Your task to perform on an android device: open app "Google Duo" (install if not already installed) Image 0: 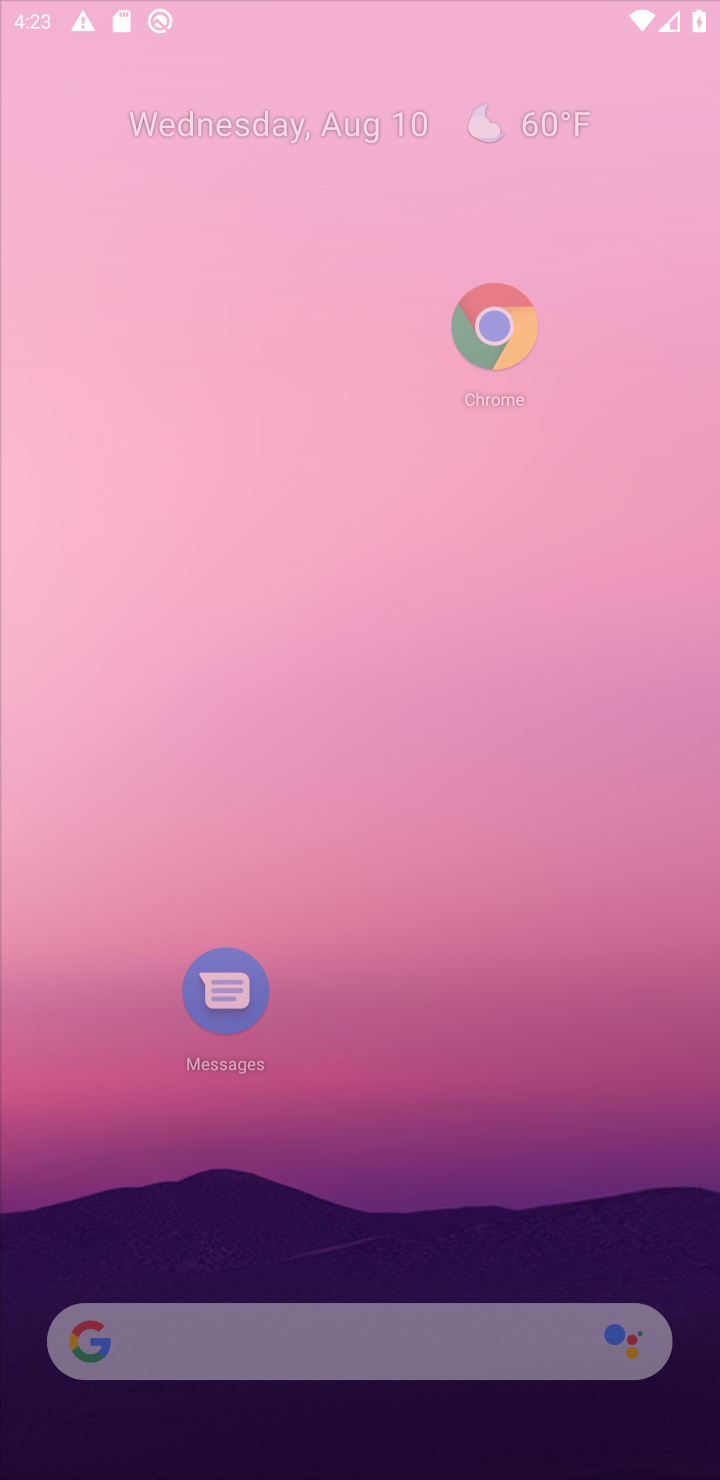
Step 0: click (576, 85)
Your task to perform on an android device: open app "Google Duo" (install if not already installed) Image 1: 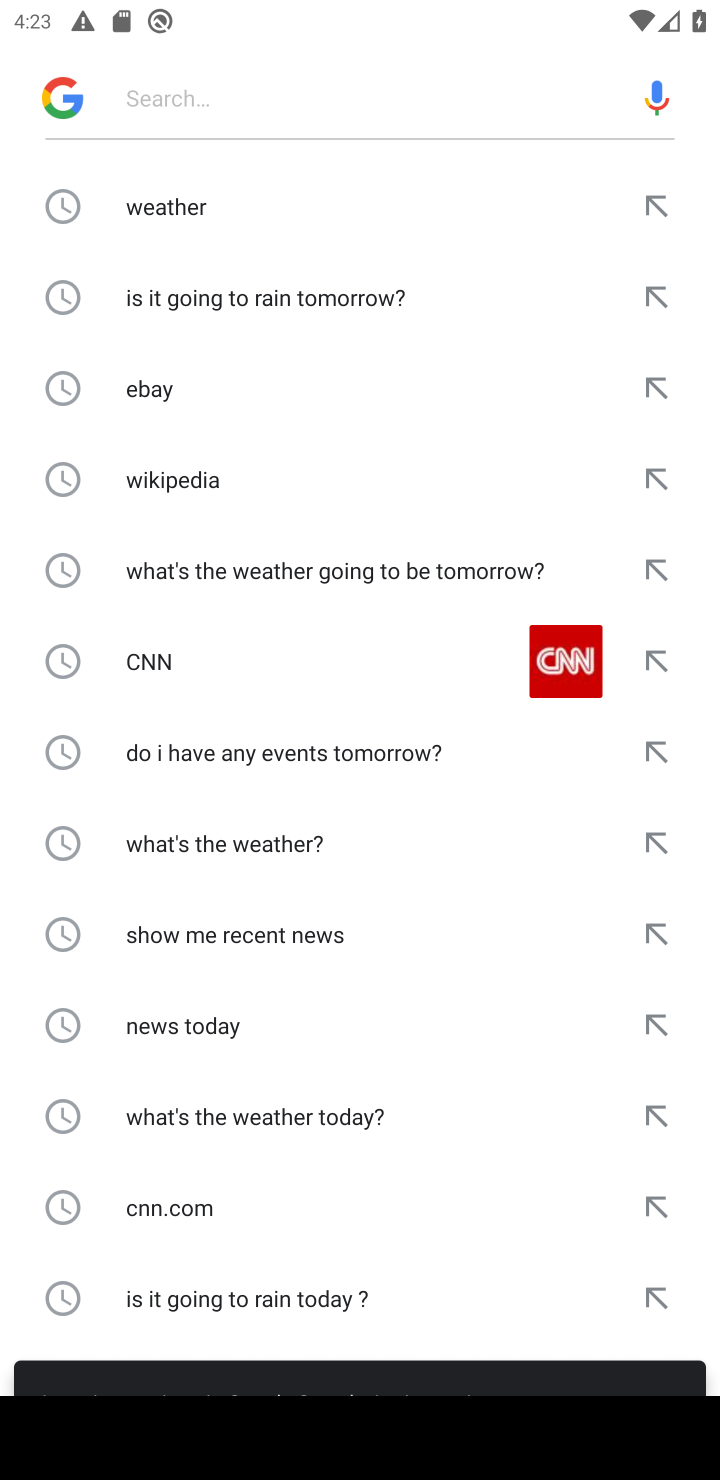
Step 1: press home button
Your task to perform on an android device: open app "Google Duo" (install if not already installed) Image 2: 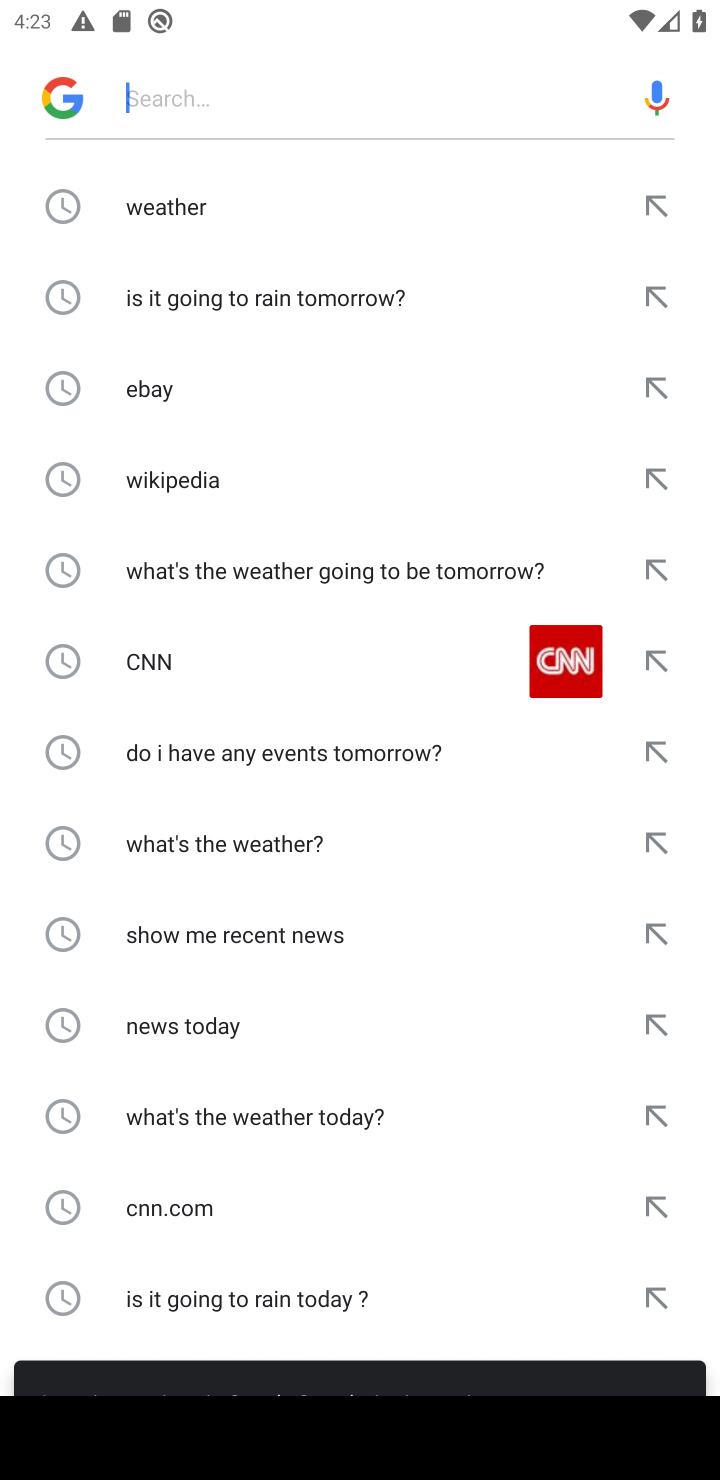
Step 2: press home button
Your task to perform on an android device: open app "Google Duo" (install if not already installed) Image 3: 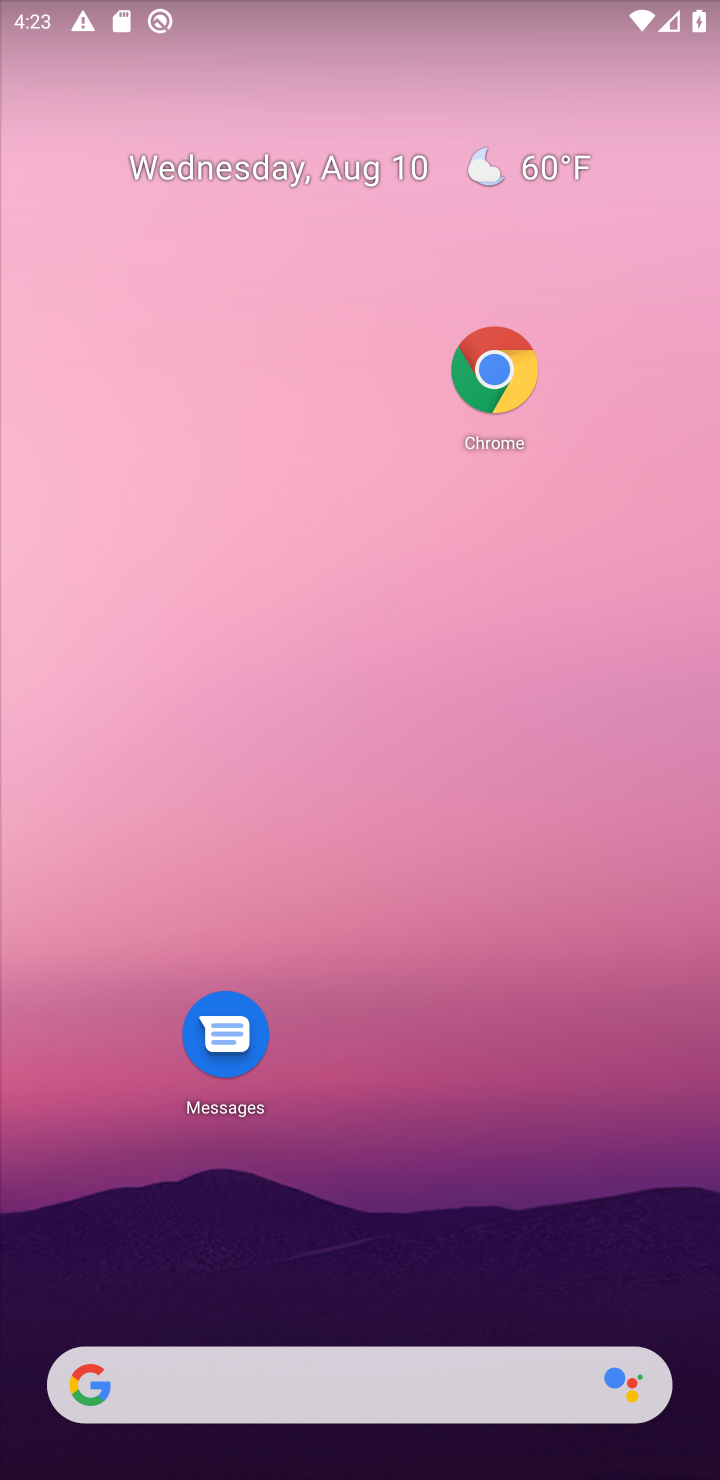
Step 3: drag from (324, 1014) to (292, 500)
Your task to perform on an android device: open app "Google Duo" (install if not already installed) Image 4: 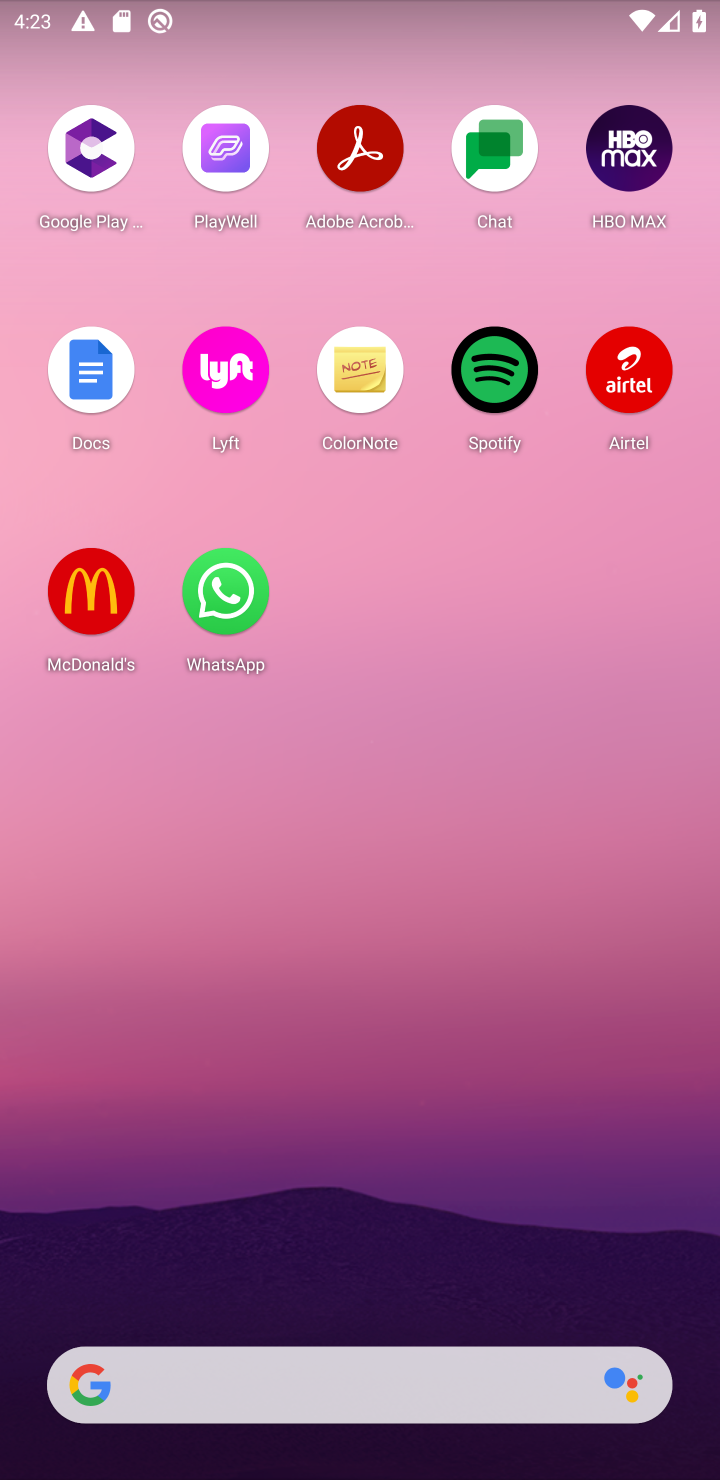
Step 4: drag from (235, 1376) to (345, 498)
Your task to perform on an android device: open app "Google Duo" (install if not already installed) Image 5: 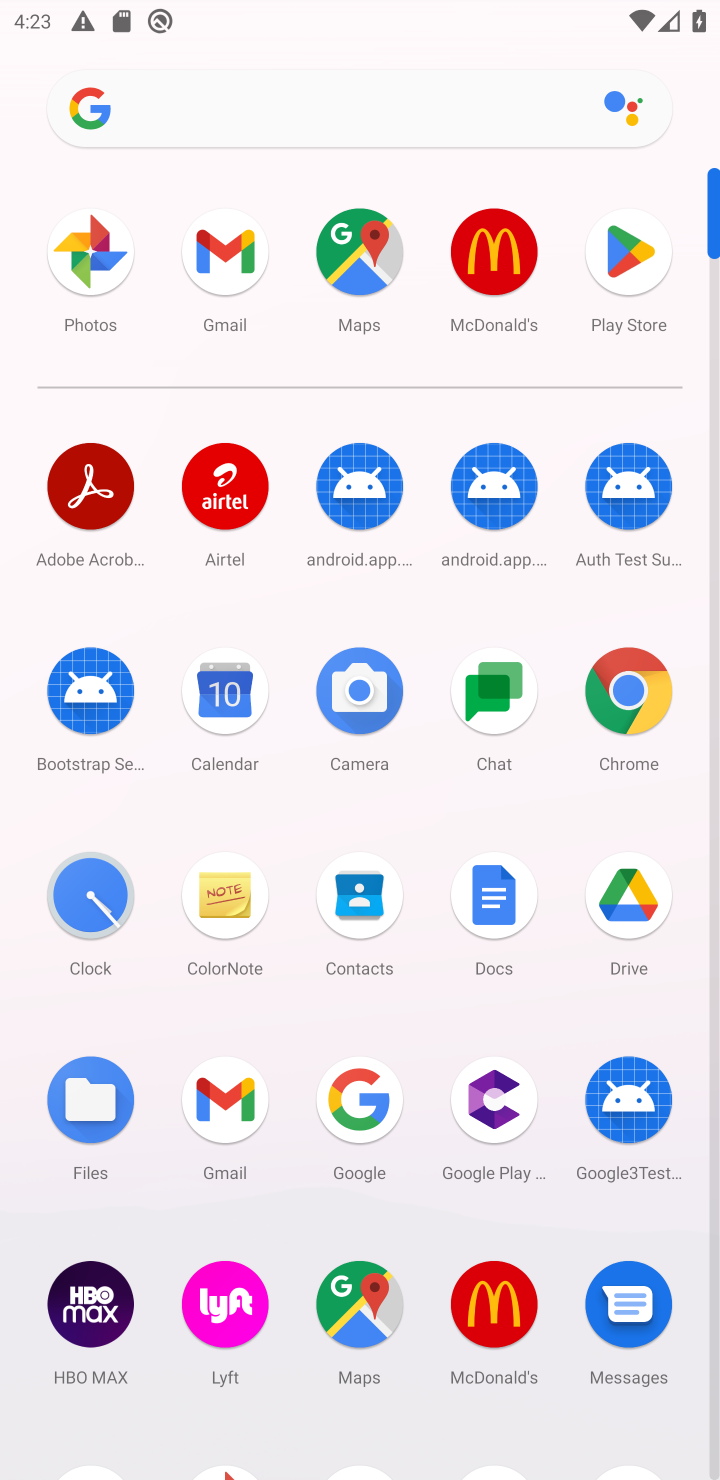
Step 5: click (601, 253)
Your task to perform on an android device: open app "Google Duo" (install if not already installed) Image 6: 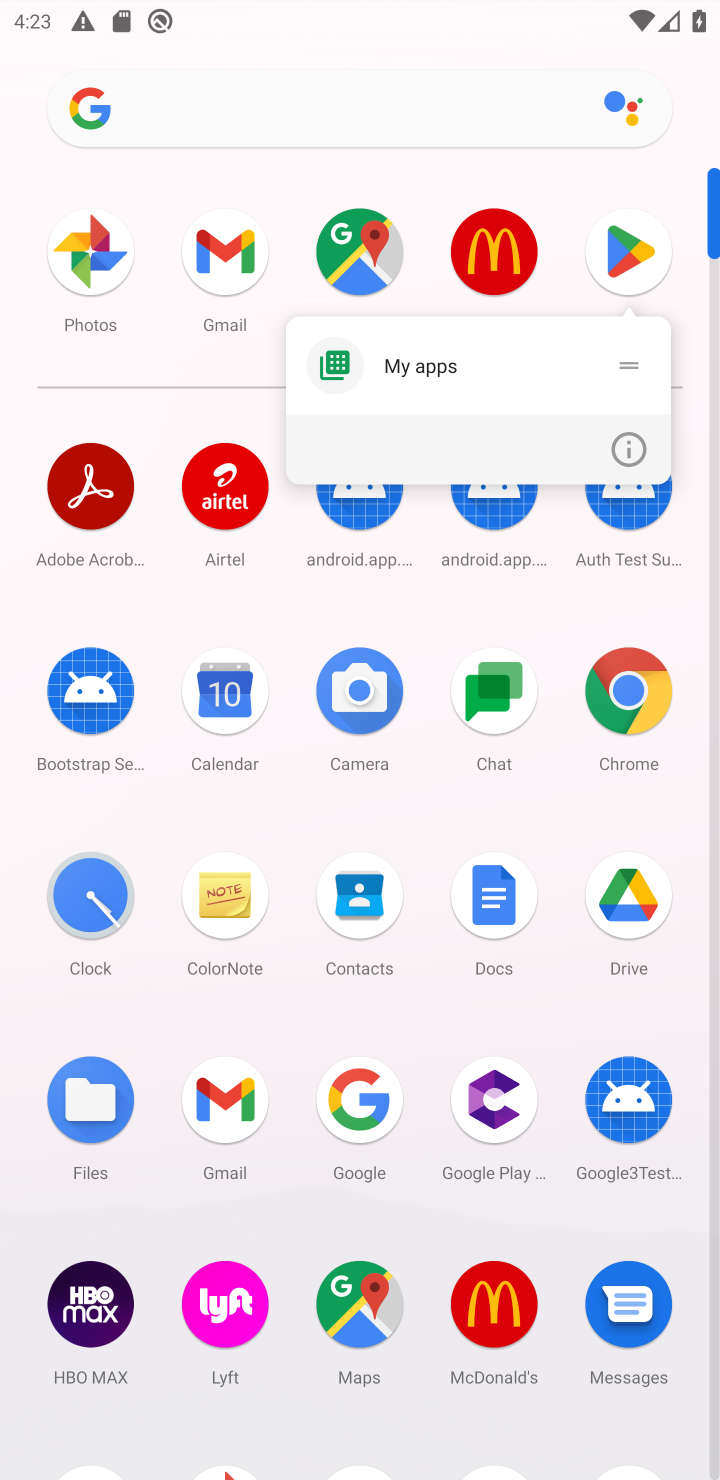
Step 6: click (633, 230)
Your task to perform on an android device: open app "Google Duo" (install if not already installed) Image 7: 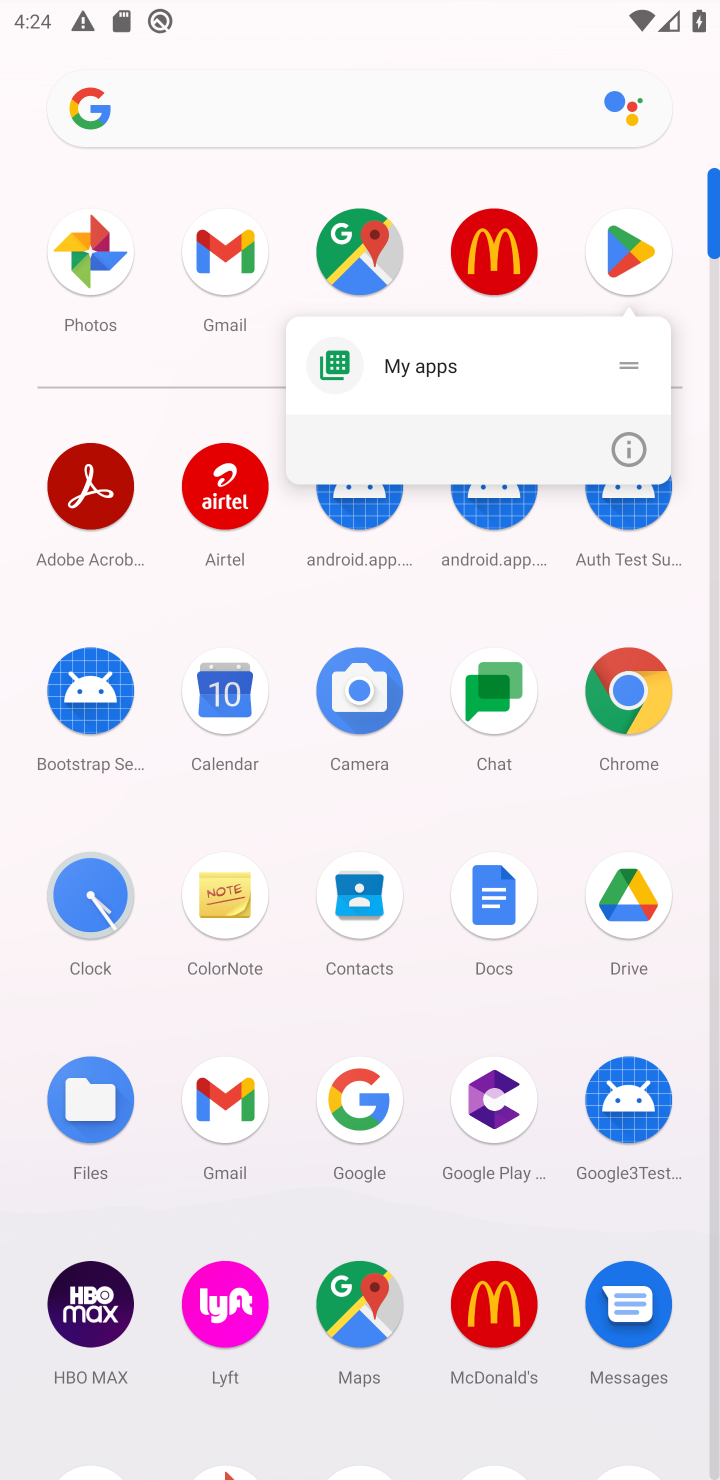
Step 7: click (626, 237)
Your task to perform on an android device: open app "Google Duo" (install if not already installed) Image 8: 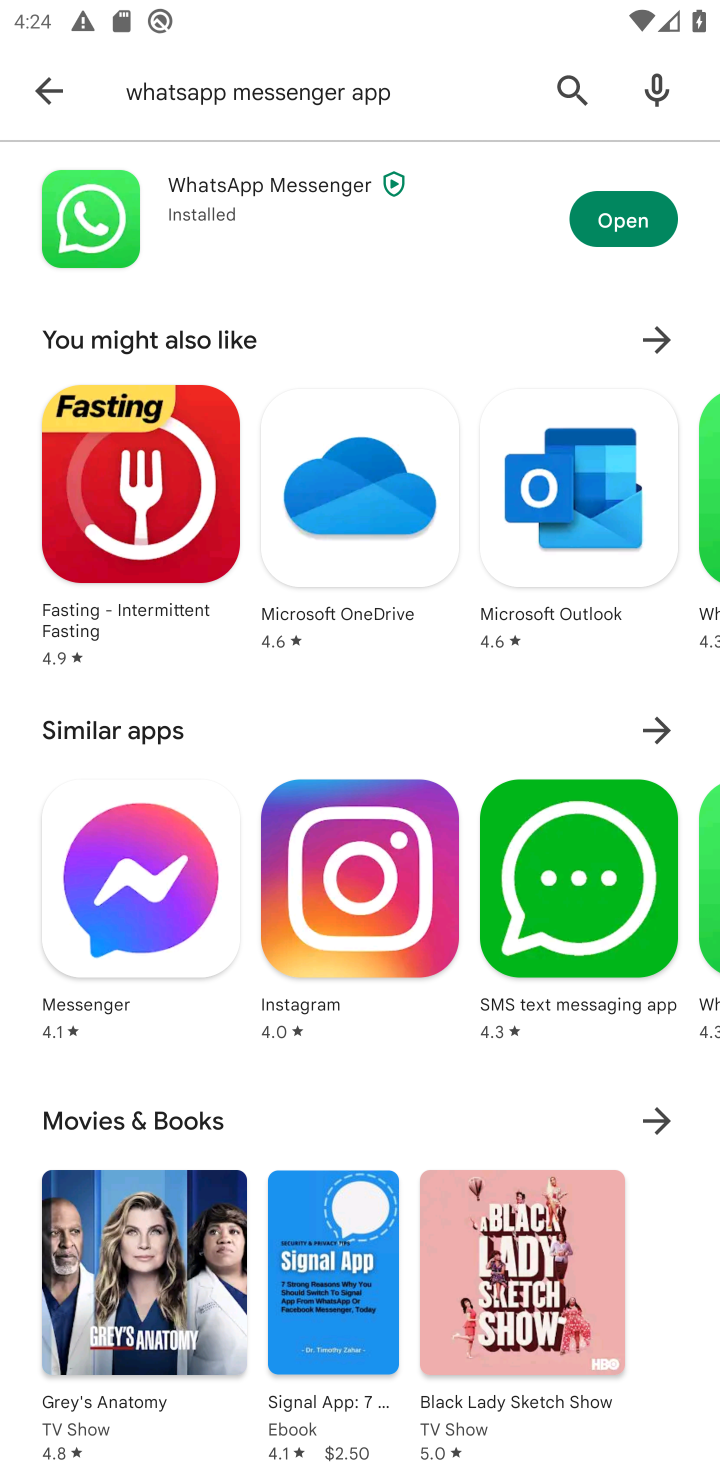
Step 8: click (626, 245)
Your task to perform on an android device: open app "Google Duo" (install if not already installed) Image 9: 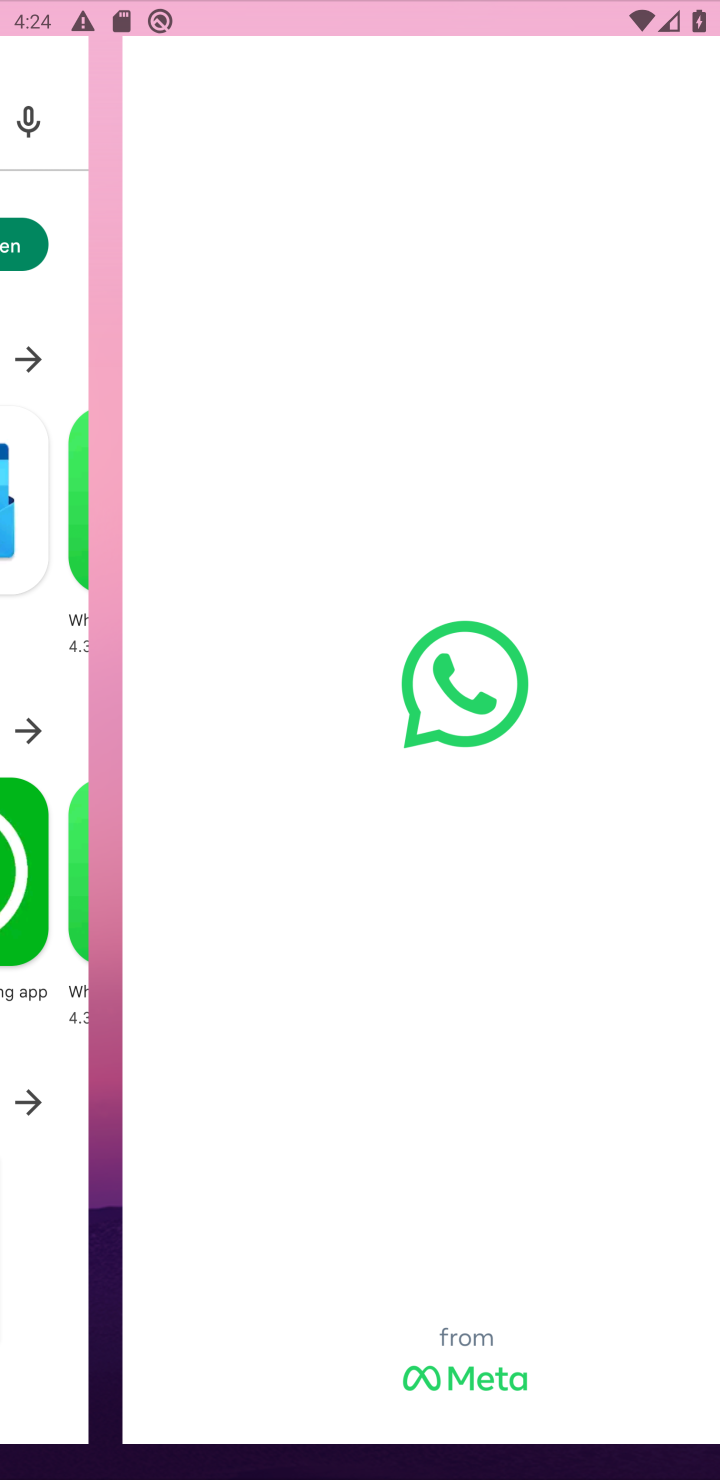
Step 9: click (55, 97)
Your task to perform on an android device: open app "Google Duo" (install if not already installed) Image 10: 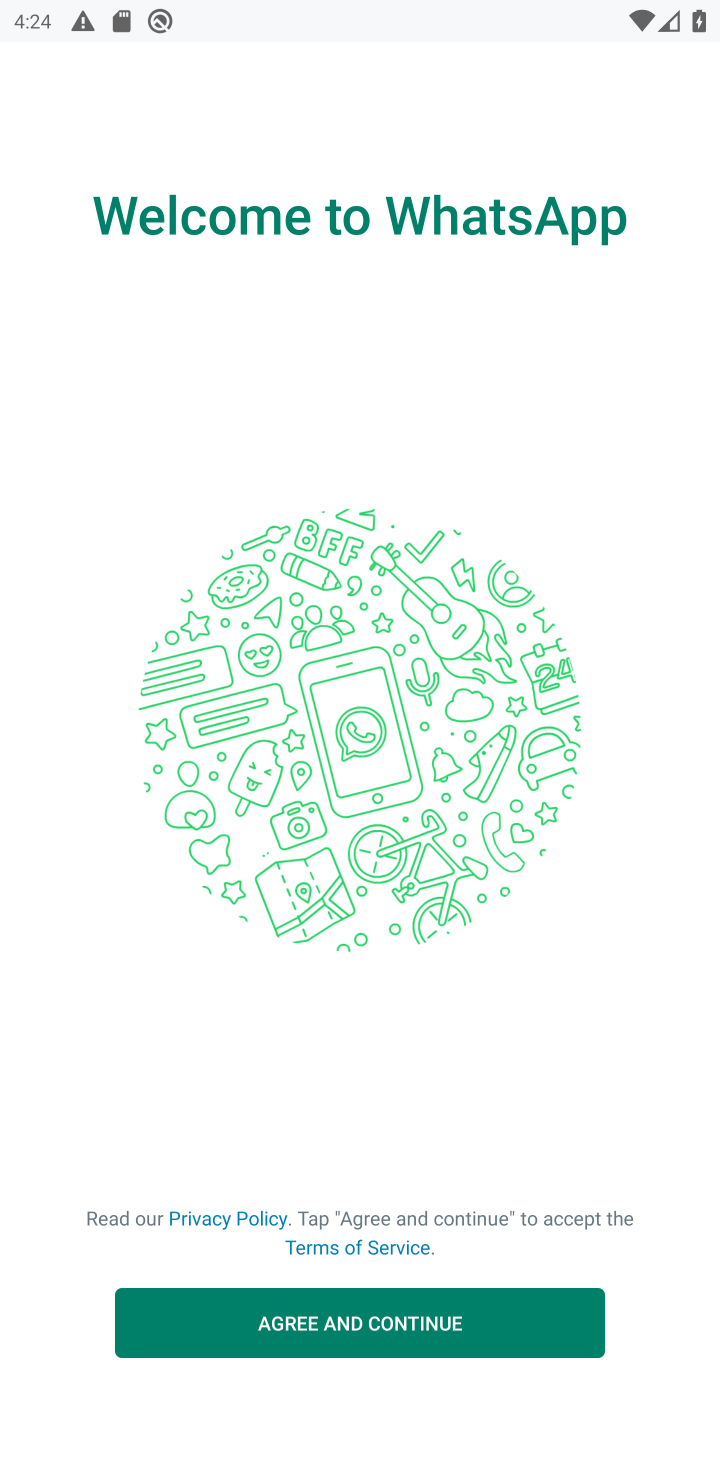
Step 10: press home button
Your task to perform on an android device: open app "Google Duo" (install if not already installed) Image 11: 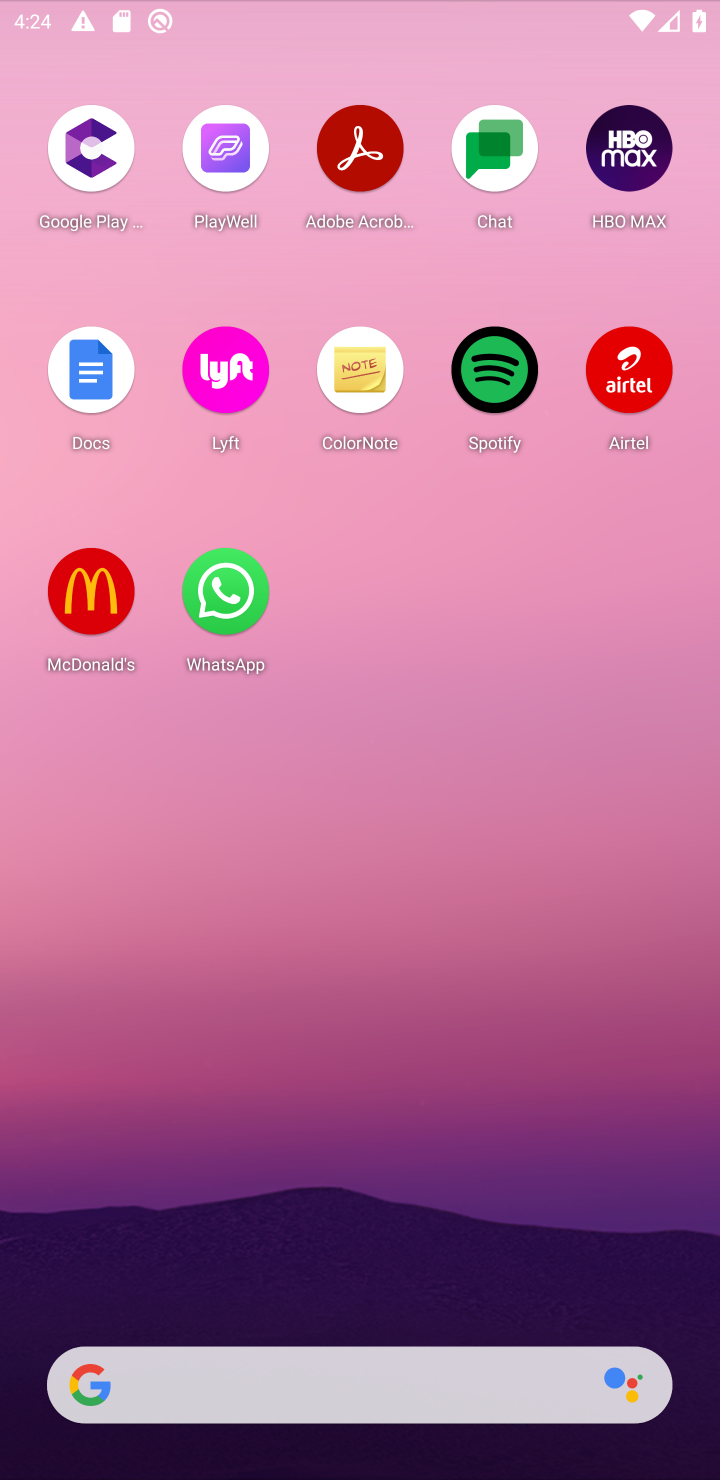
Step 11: drag from (301, 1224) to (507, 305)
Your task to perform on an android device: open app "Google Duo" (install if not already installed) Image 12: 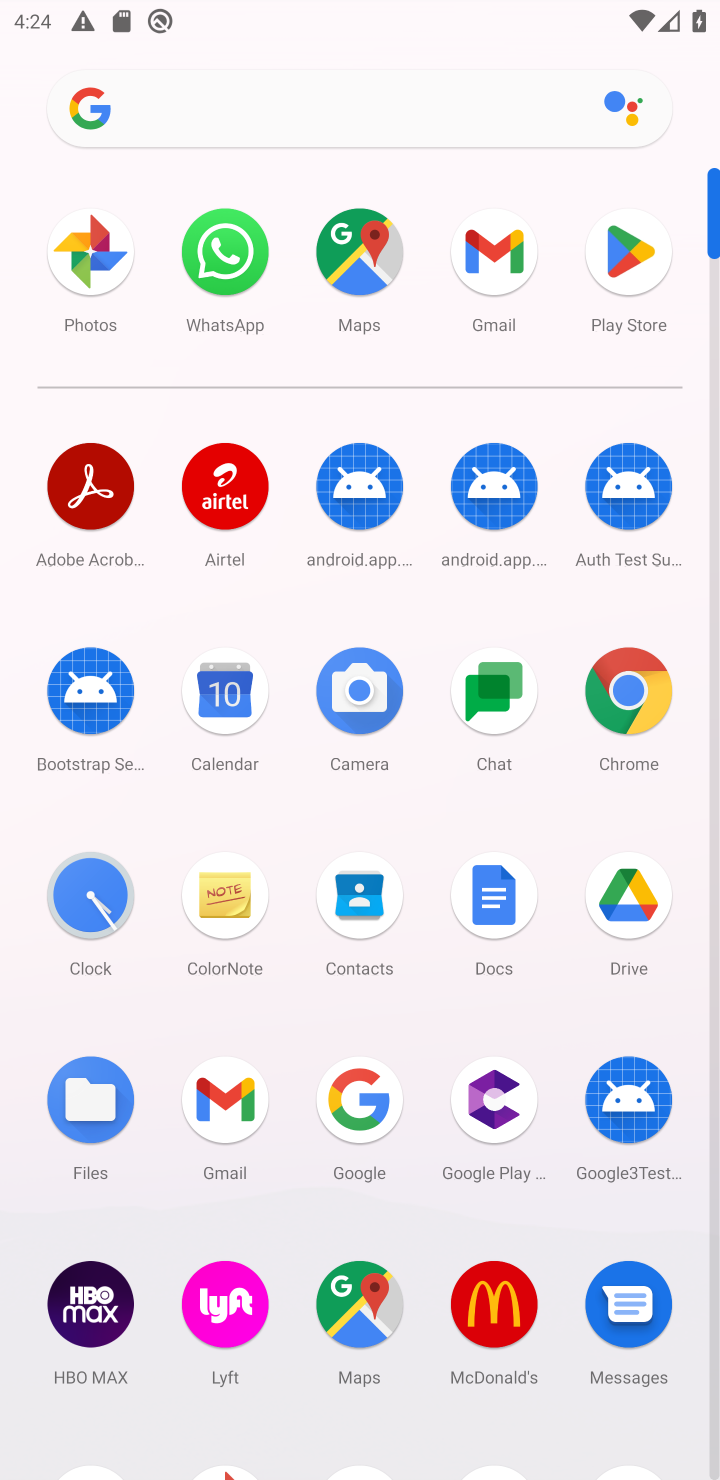
Step 12: click (640, 246)
Your task to perform on an android device: open app "Google Duo" (install if not already installed) Image 13: 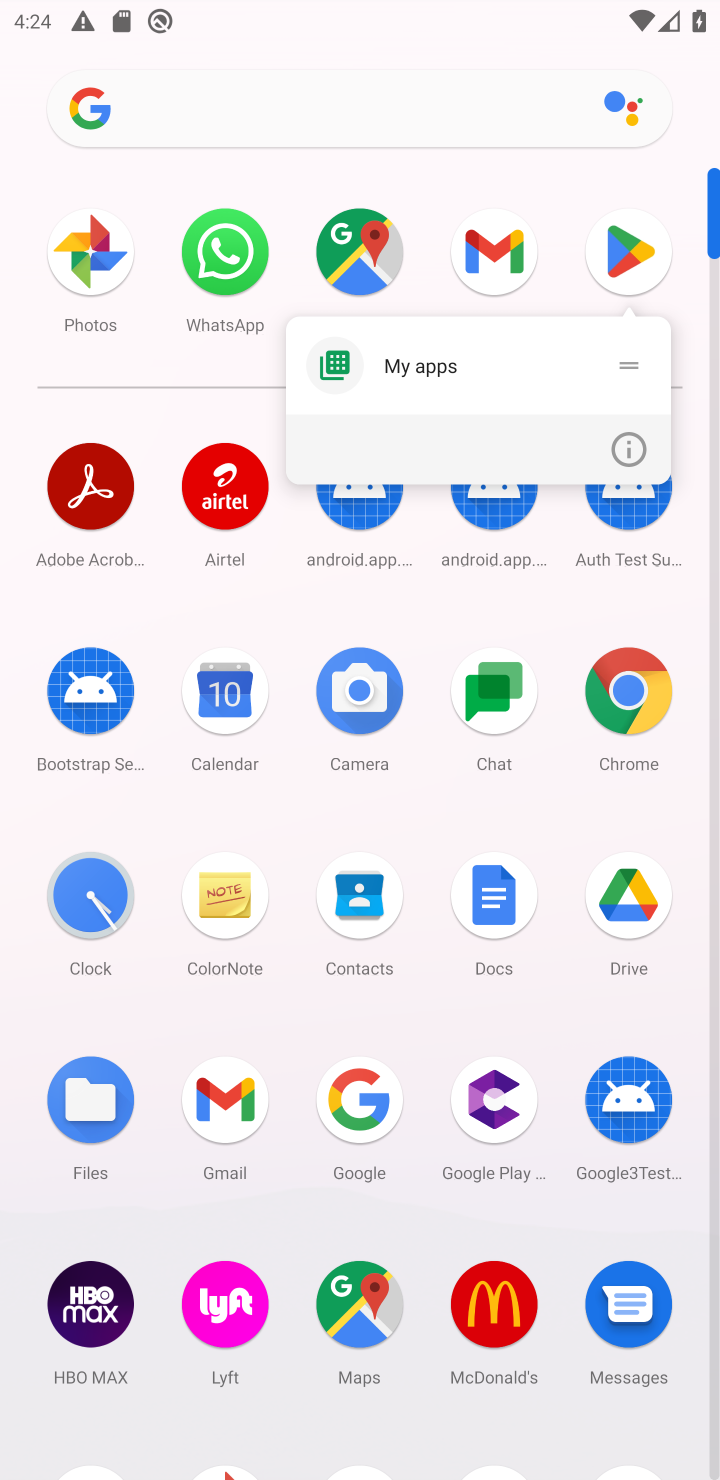
Step 13: click (640, 246)
Your task to perform on an android device: open app "Google Duo" (install if not already installed) Image 14: 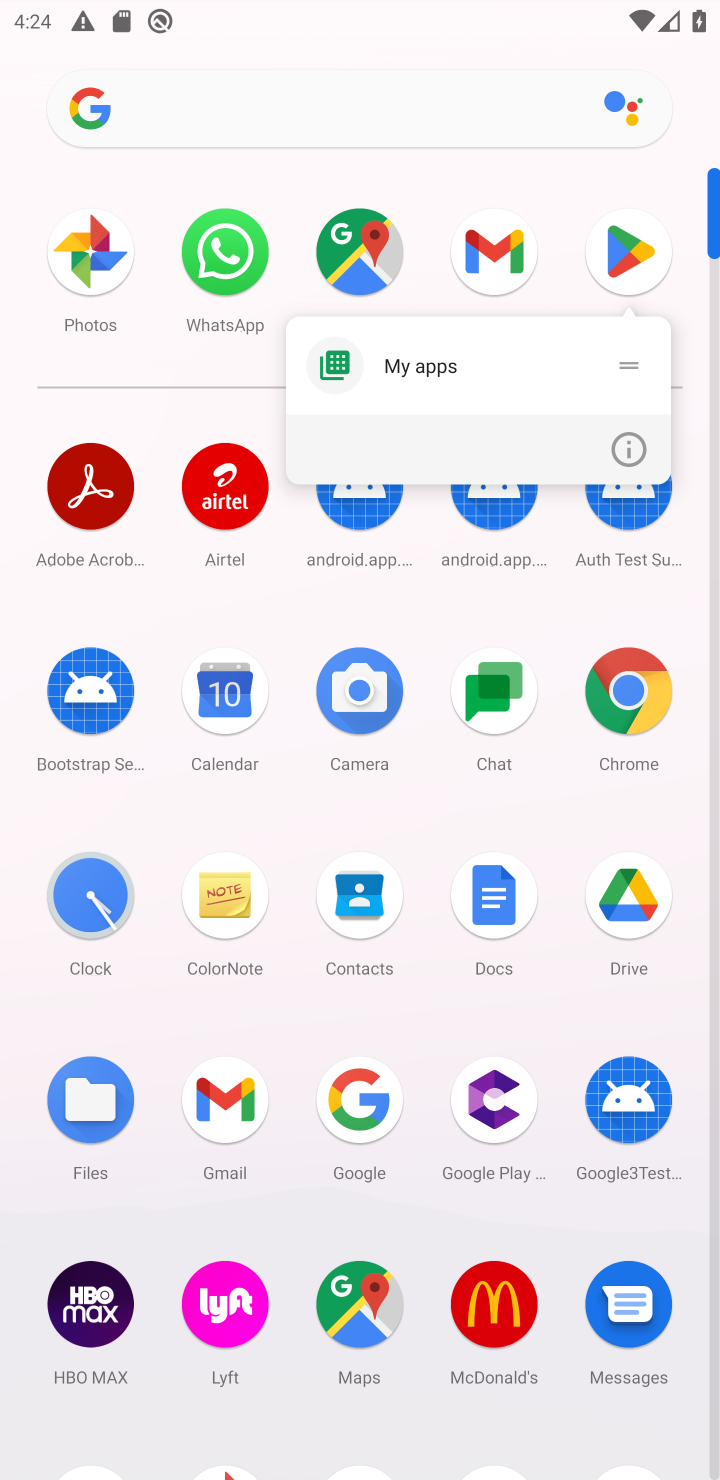
Step 14: click (638, 256)
Your task to perform on an android device: open app "Google Duo" (install if not already installed) Image 15: 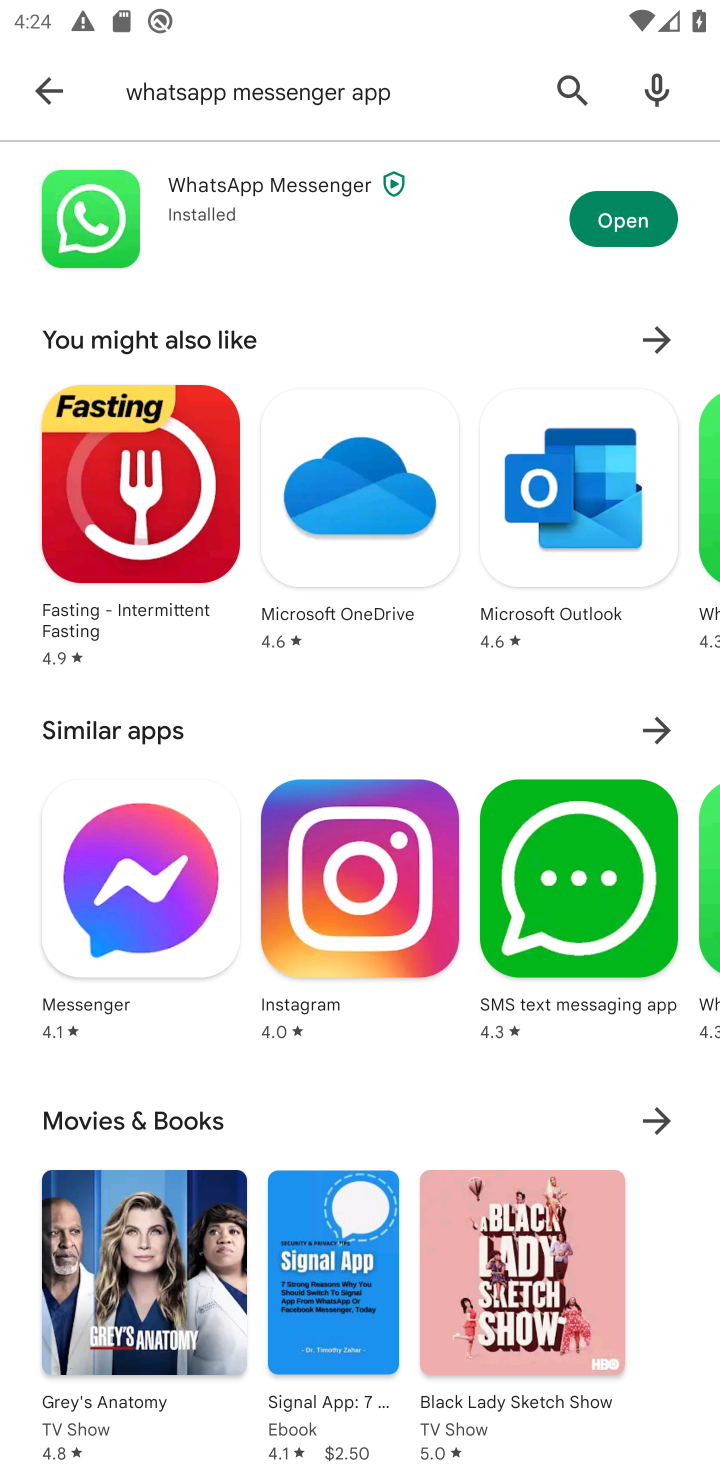
Step 15: click (57, 95)
Your task to perform on an android device: open app "Google Duo" (install if not already installed) Image 16: 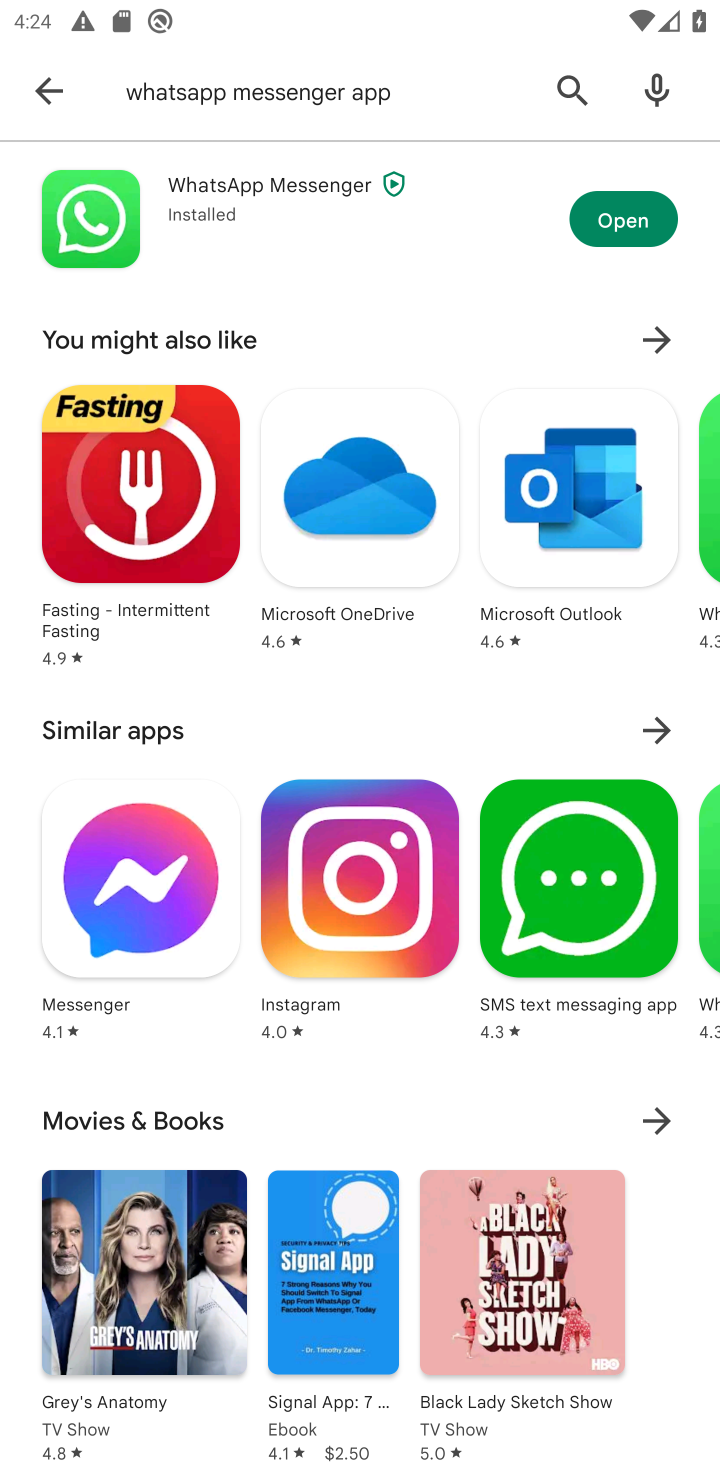
Step 16: click (562, 71)
Your task to perform on an android device: open app "Google Duo" (install if not already installed) Image 17: 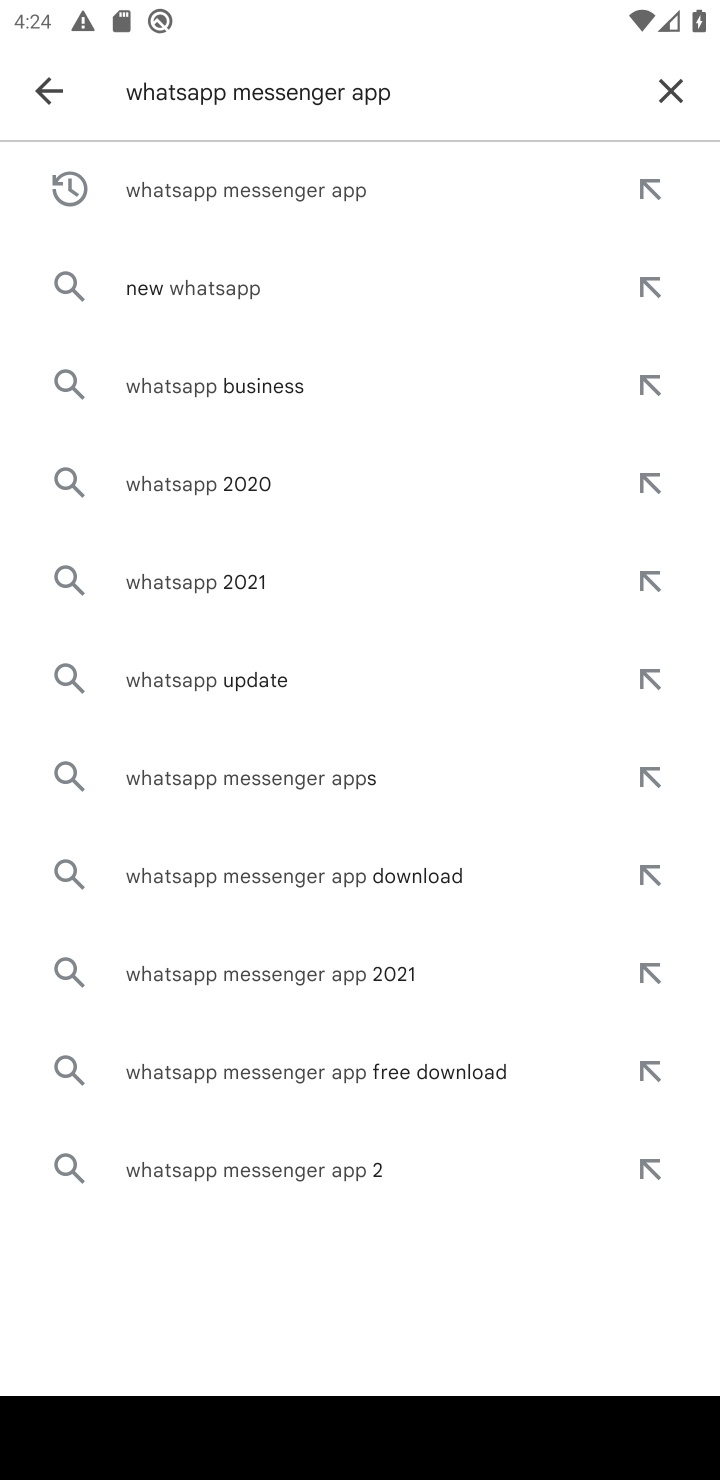
Step 17: click (674, 71)
Your task to perform on an android device: open app "Google Duo" (install if not already installed) Image 18: 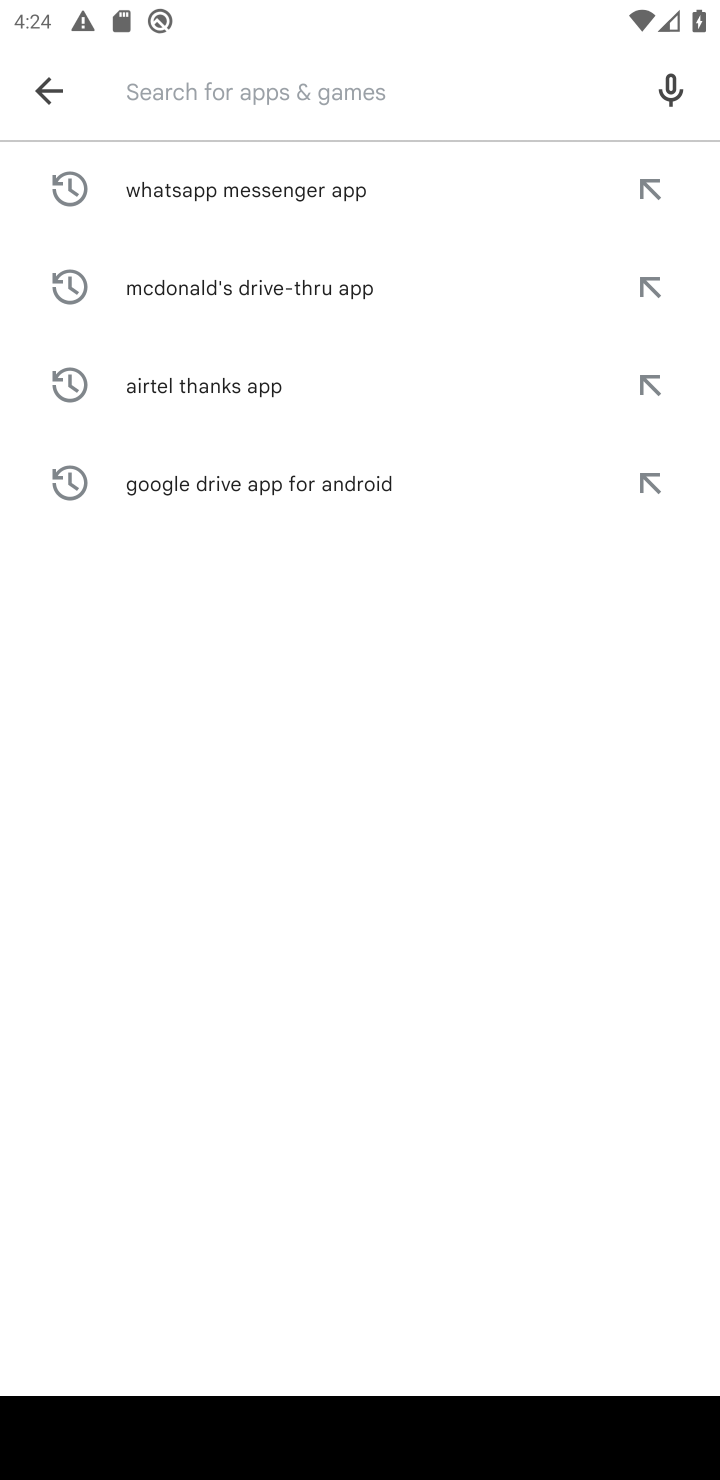
Step 18: click (364, 58)
Your task to perform on an android device: open app "Google Duo" (install if not already installed) Image 19: 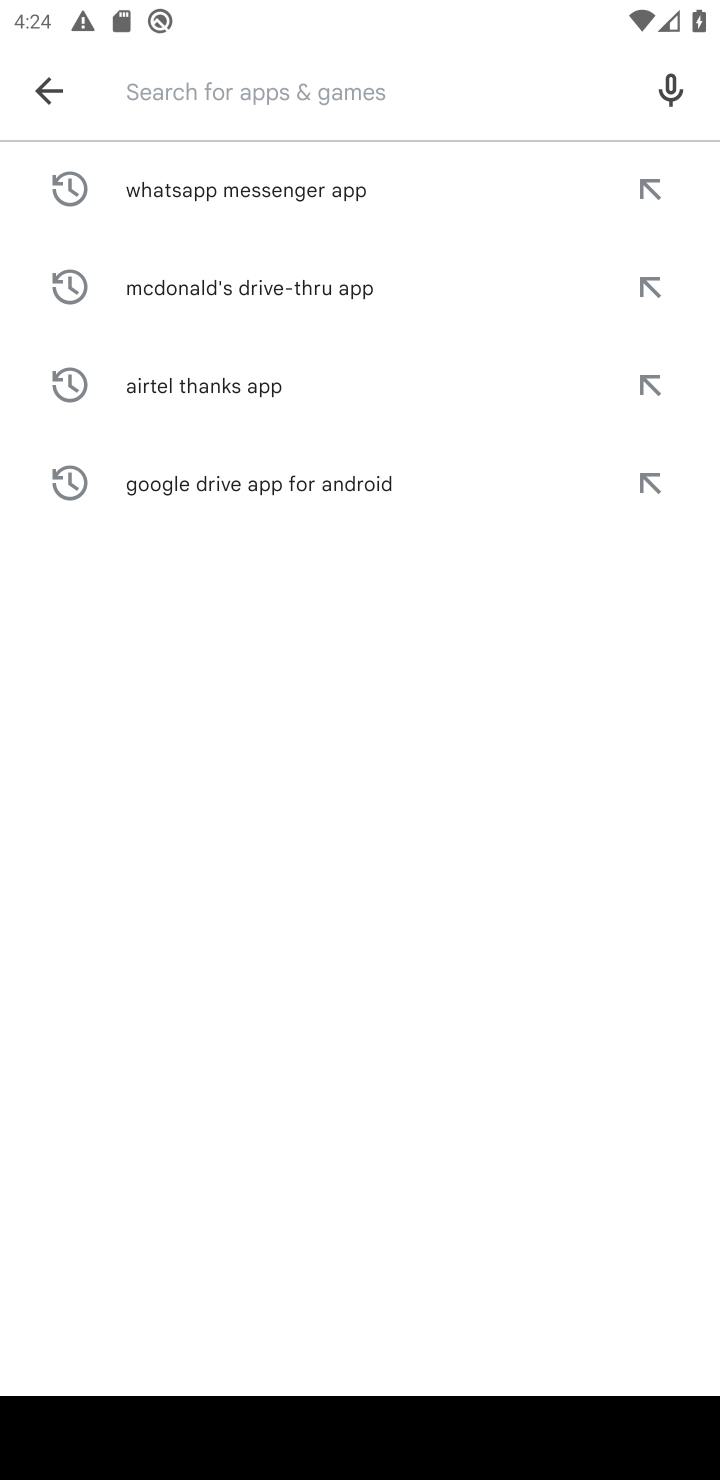
Step 19: type "google duo "
Your task to perform on an android device: open app "Google Duo" (install if not already installed) Image 20: 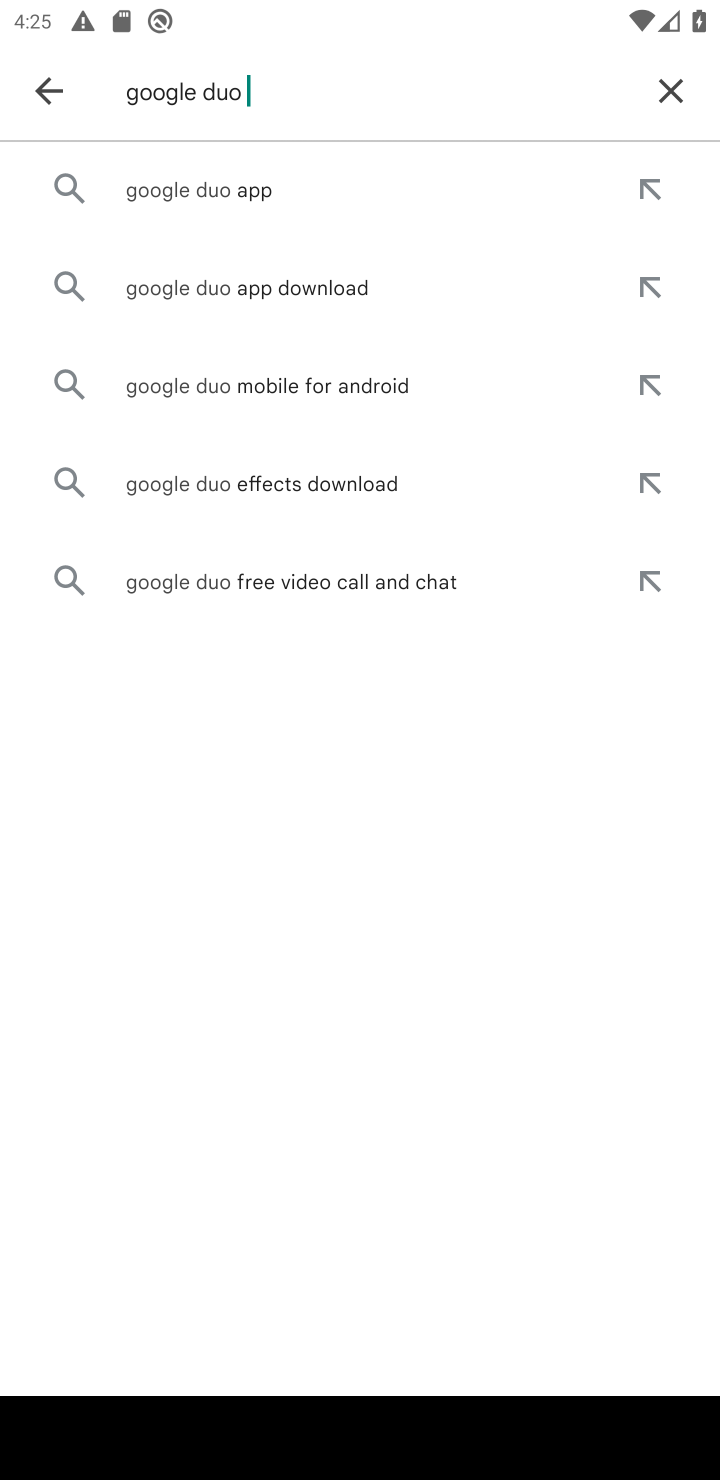
Step 20: click (232, 180)
Your task to perform on an android device: open app "Google Duo" (install if not already installed) Image 21: 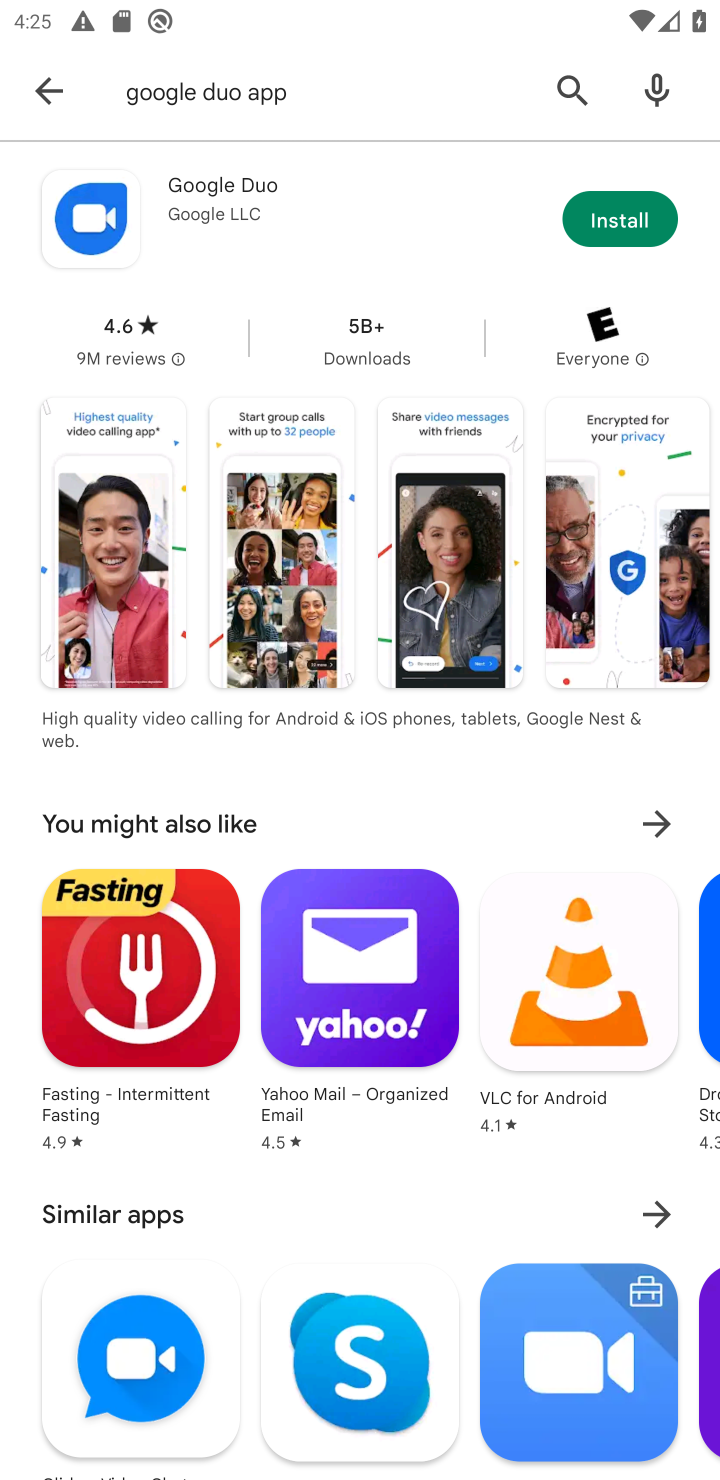
Step 21: click (611, 213)
Your task to perform on an android device: open app "Google Duo" (install if not already installed) Image 22: 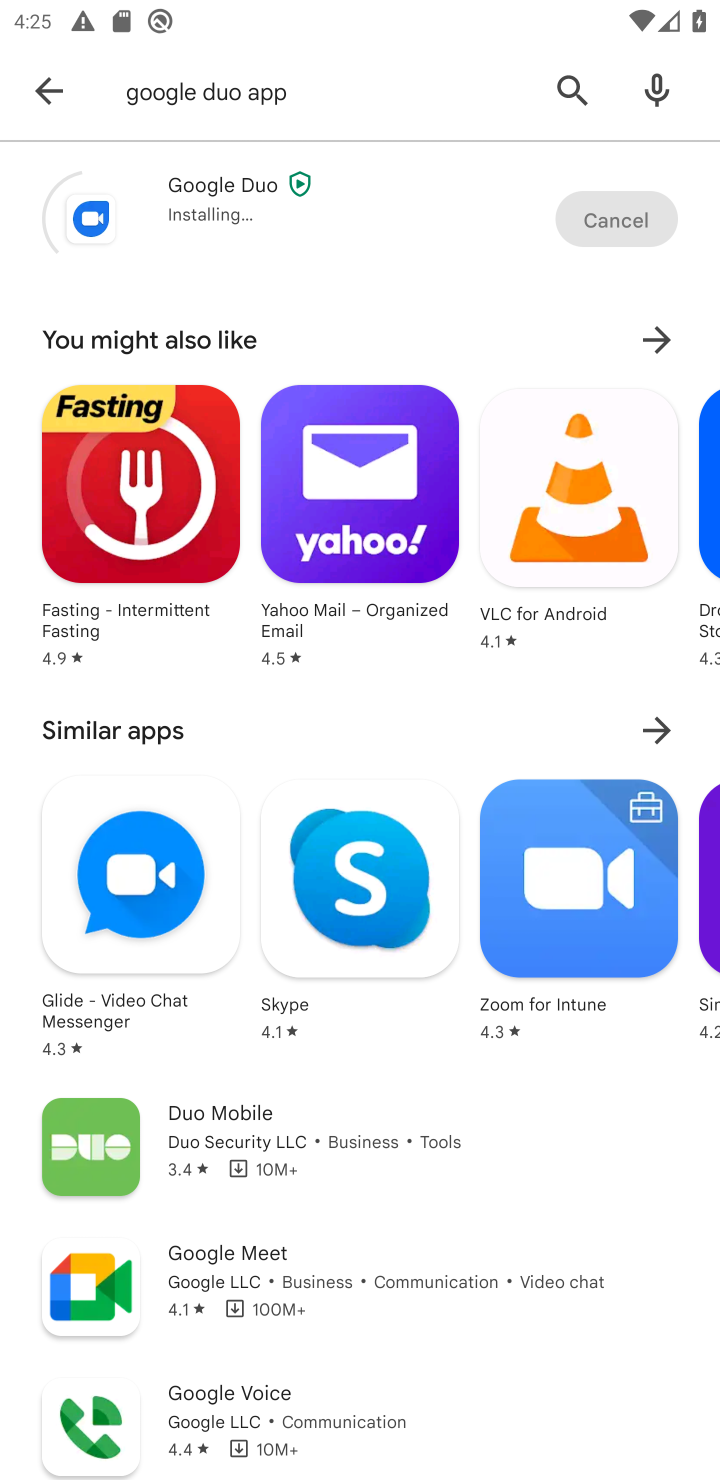
Step 22: task complete